Your task to perform on an android device: toggle data saver in the chrome app Image 0: 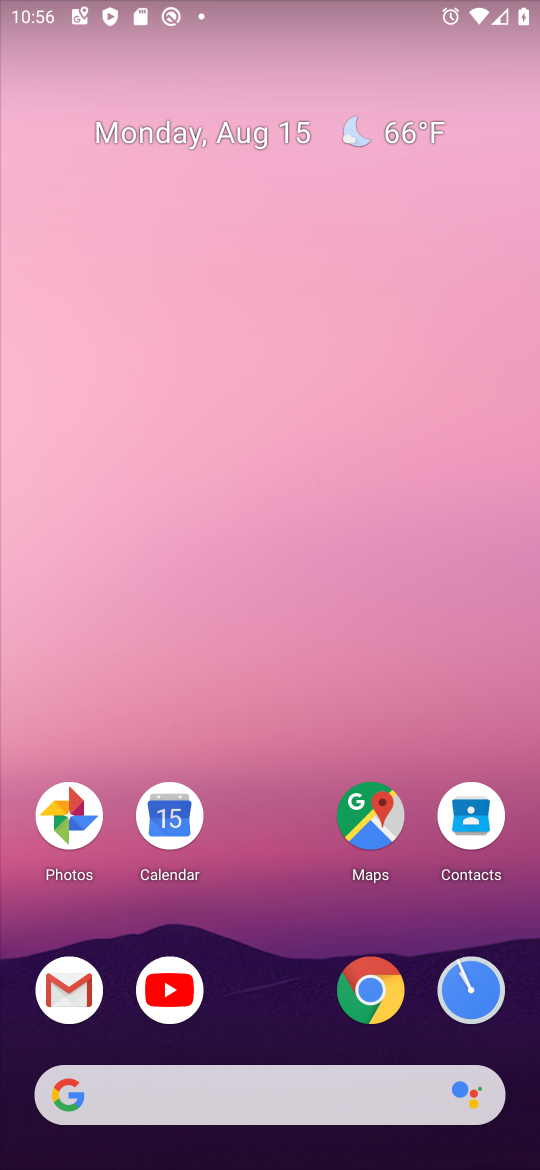
Step 0: click (376, 991)
Your task to perform on an android device: toggle data saver in the chrome app Image 1: 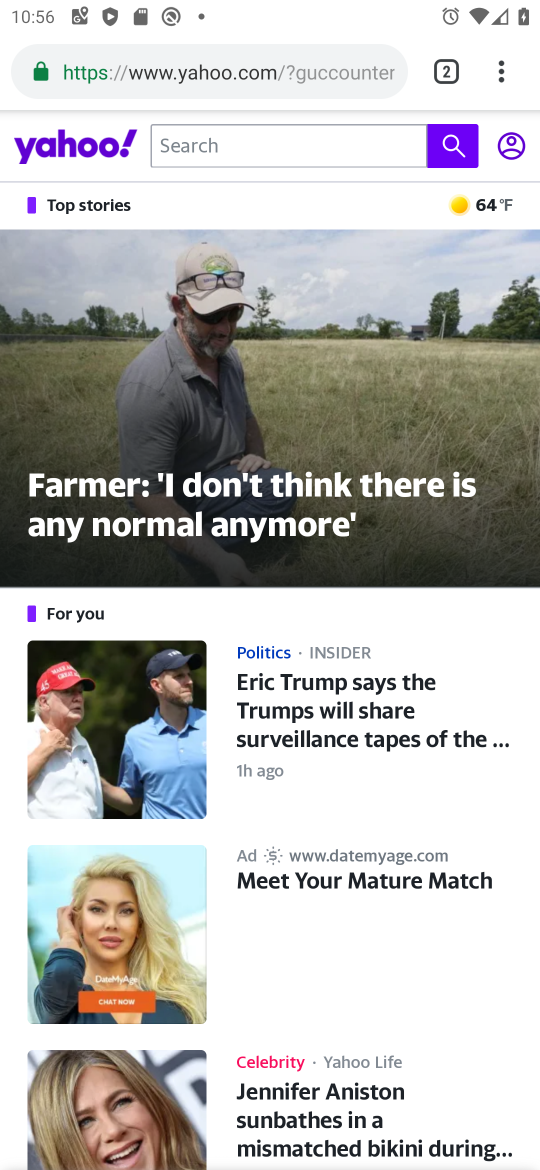
Step 1: click (506, 70)
Your task to perform on an android device: toggle data saver in the chrome app Image 2: 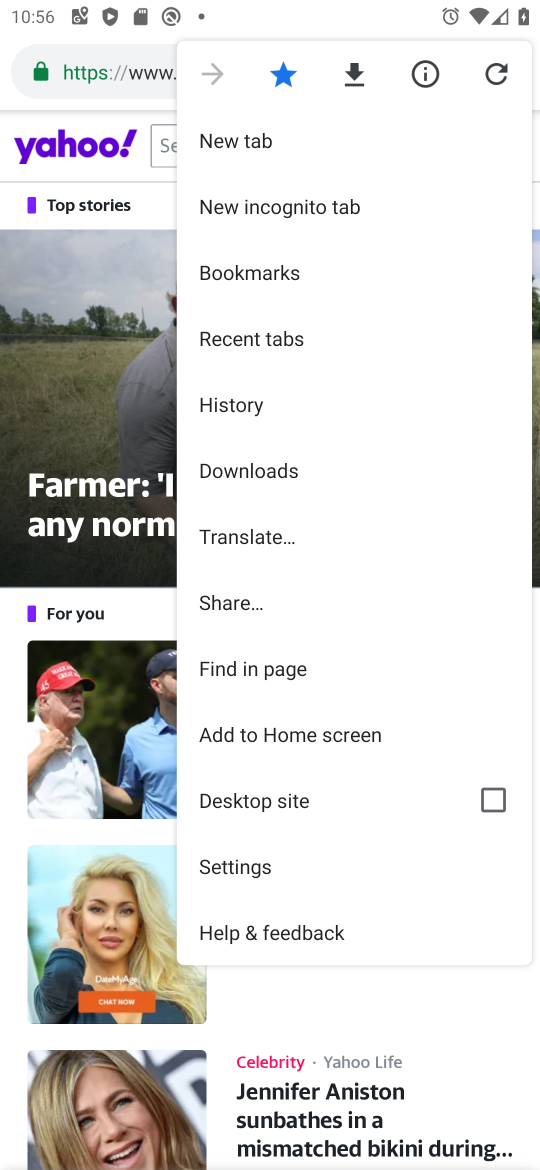
Step 2: click (255, 868)
Your task to perform on an android device: toggle data saver in the chrome app Image 3: 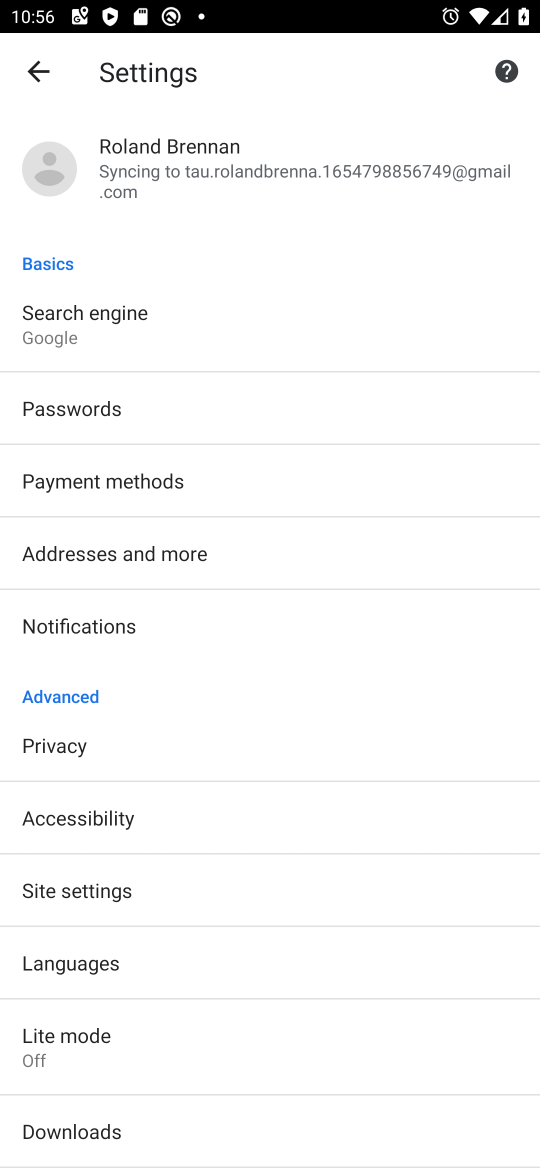
Step 3: drag from (202, 1042) to (192, 708)
Your task to perform on an android device: toggle data saver in the chrome app Image 4: 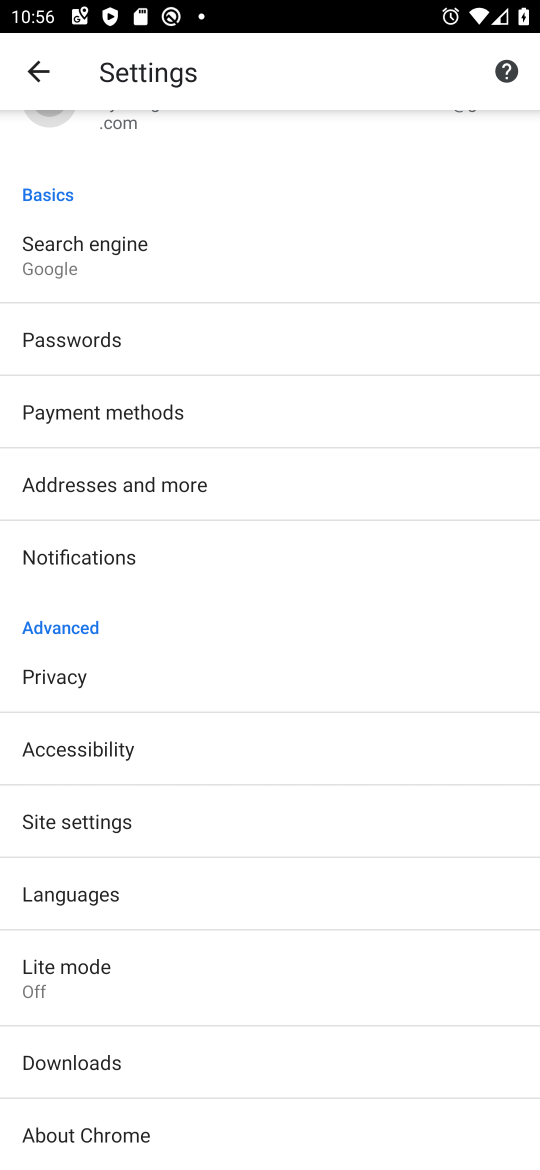
Step 4: click (86, 965)
Your task to perform on an android device: toggle data saver in the chrome app Image 5: 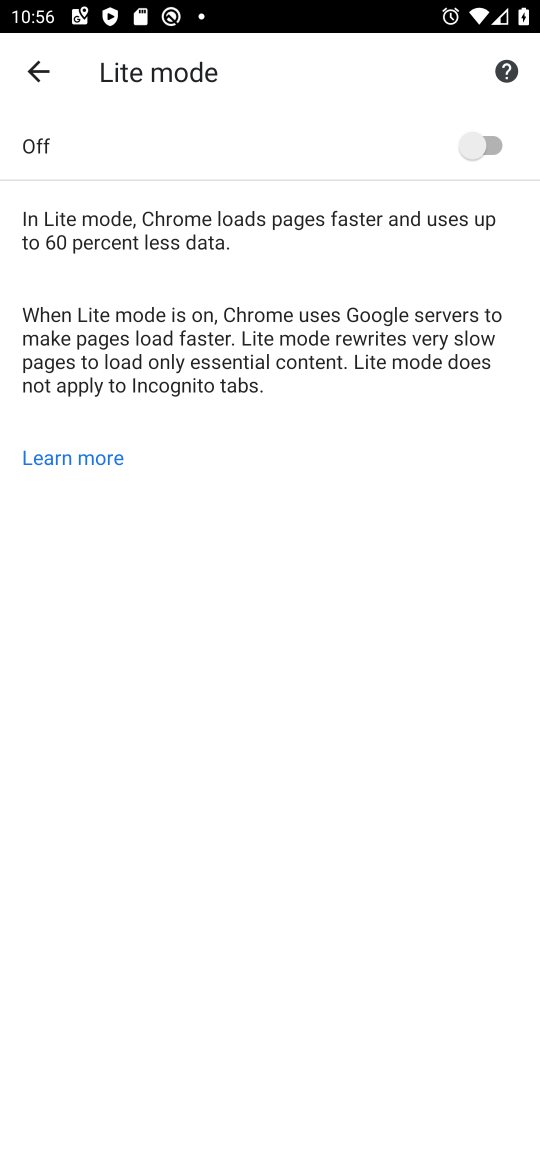
Step 5: click (483, 143)
Your task to perform on an android device: toggle data saver in the chrome app Image 6: 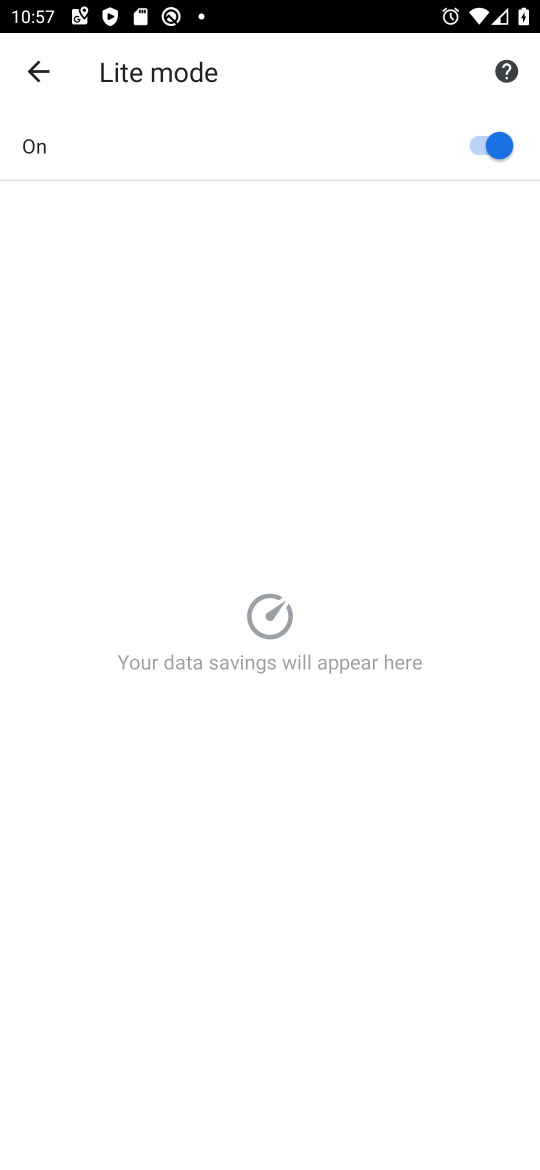
Step 6: task complete